Your task to perform on an android device: Search for pizza restaurants on Maps Image 0: 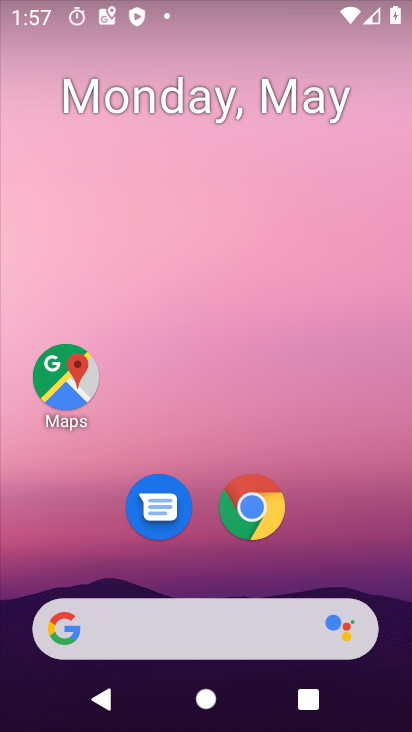
Step 0: drag from (400, 570) to (361, 38)
Your task to perform on an android device: Search for pizza restaurants on Maps Image 1: 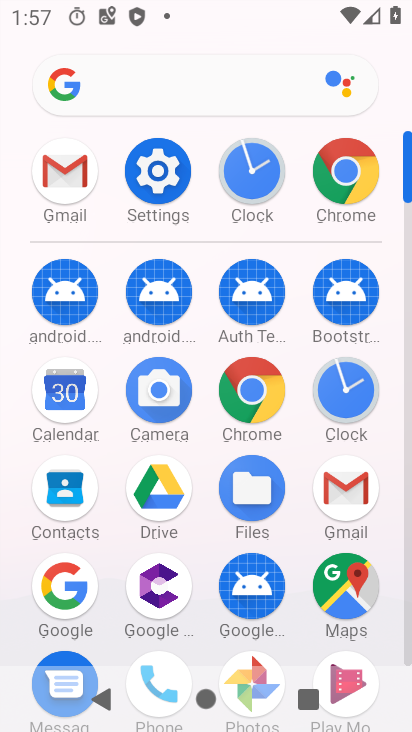
Step 1: click (341, 562)
Your task to perform on an android device: Search for pizza restaurants on Maps Image 2: 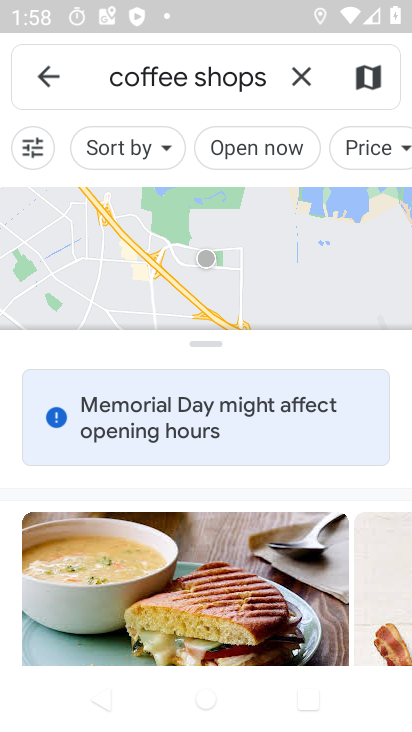
Step 2: click (304, 73)
Your task to perform on an android device: Search for pizza restaurants on Maps Image 3: 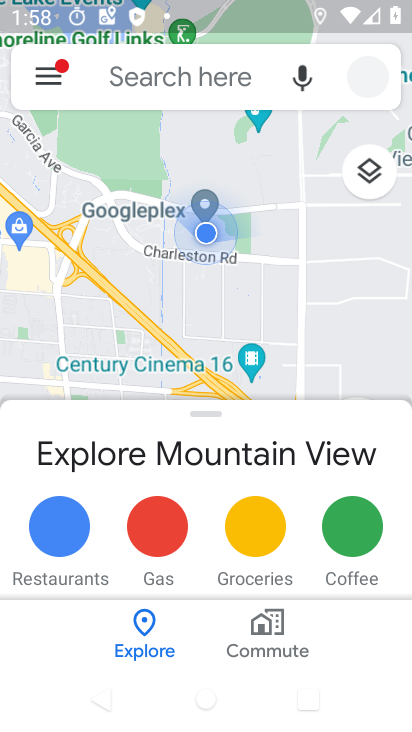
Step 3: click (117, 81)
Your task to perform on an android device: Search for pizza restaurants on Maps Image 4: 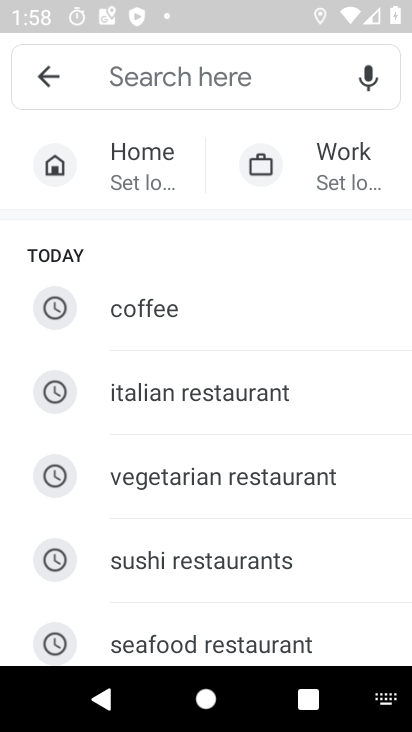
Step 4: type "pizza restaurants "
Your task to perform on an android device: Search for pizza restaurants on Maps Image 5: 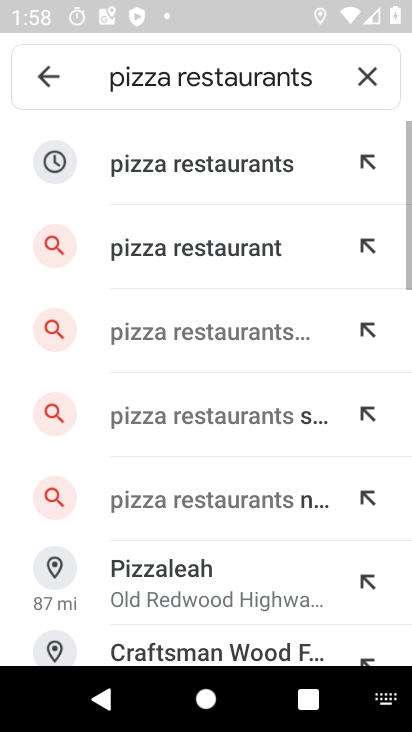
Step 5: click (190, 153)
Your task to perform on an android device: Search for pizza restaurants on Maps Image 6: 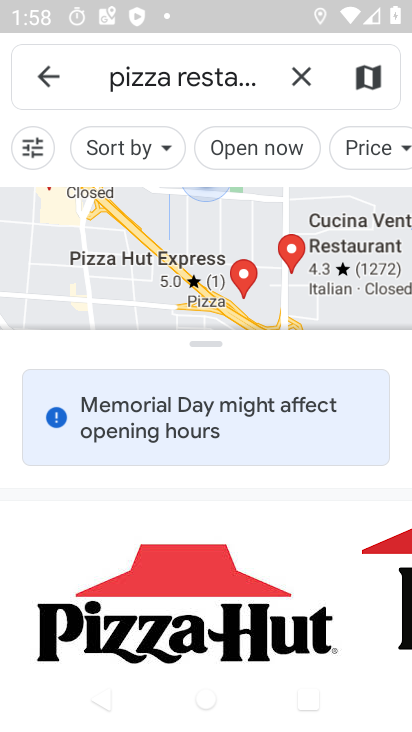
Step 6: task complete